Your task to perform on an android device: Open Maps and search for coffee Image 0: 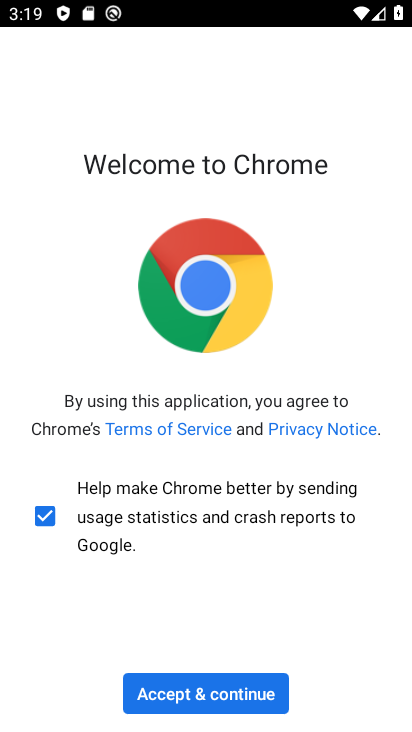
Step 0: press home button
Your task to perform on an android device: Open Maps and search for coffee Image 1: 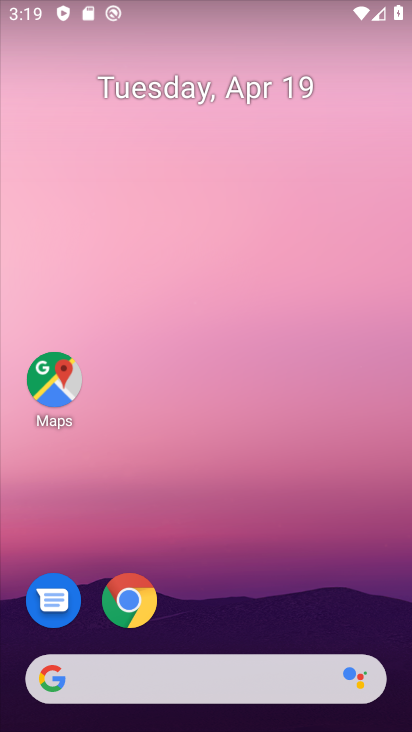
Step 1: click (73, 383)
Your task to perform on an android device: Open Maps and search for coffee Image 2: 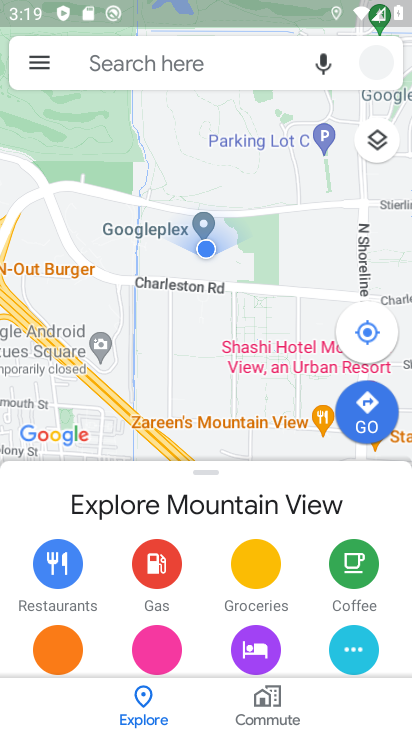
Step 2: click (158, 59)
Your task to perform on an android device: Open Maps and search for coffee Image 3: 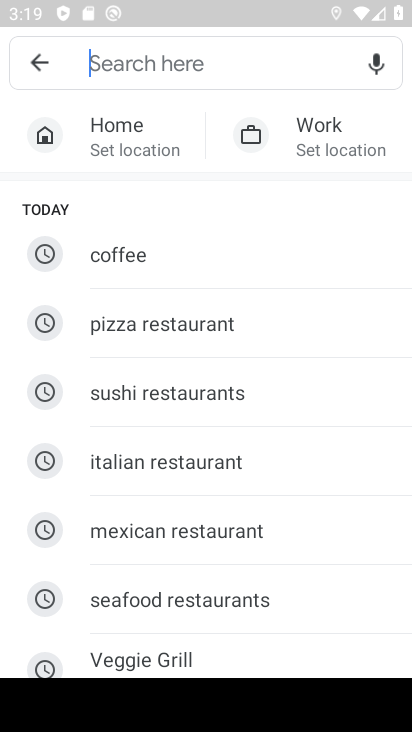
Step 3: type "coffee"
Your task to perform on an android device: Open Maps and search for coffee Image 4: 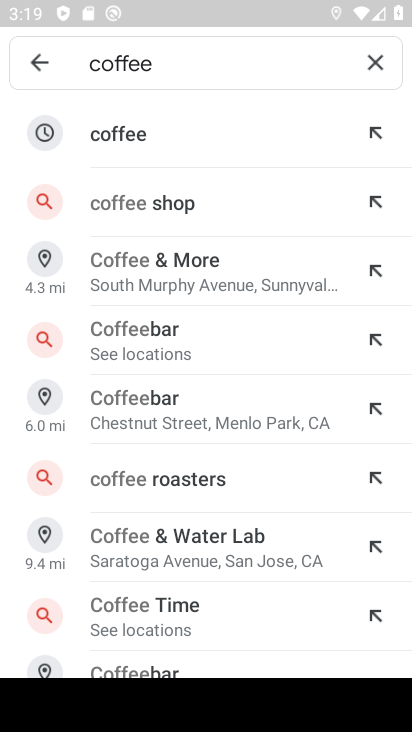
Step 4: click (146, 140)
Your task to perform on an android device: Open Maps and search for coffee Image 5: 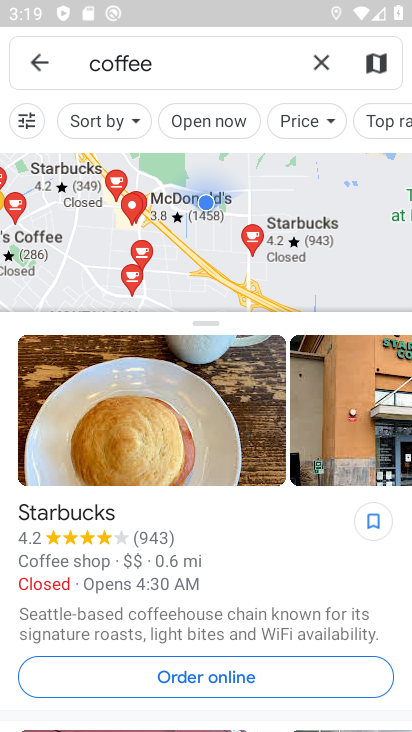
Step 5: task complete